Your task to perform on an android device: change the upload size in google photos Image 0: 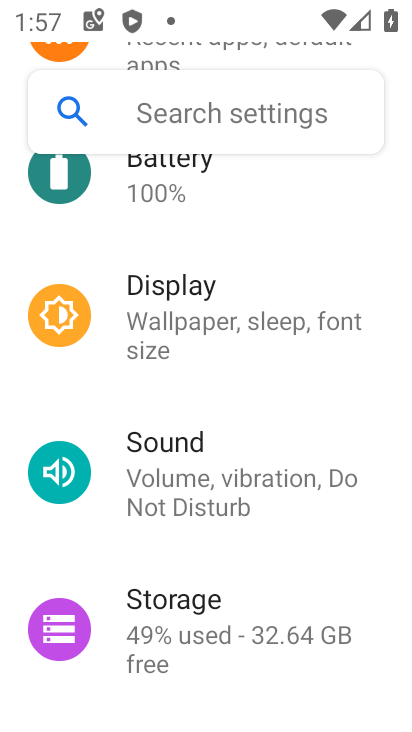
Step 0: press home button
Your task to perform on an android device: change the upload size in google photos Image 1: 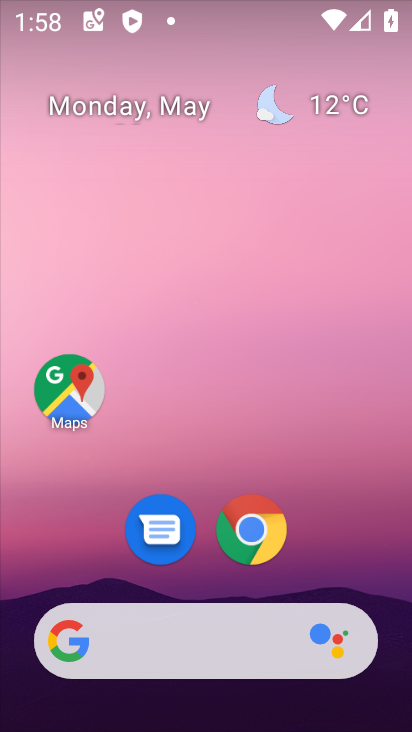
Step 1: drag from (379, 594) to (318, 136)
Your task to perform on an android device: change the upload size in google photos Image 2: 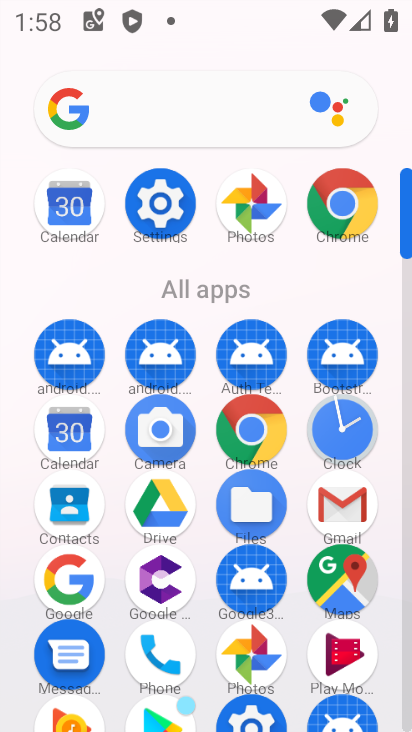
Step 2: click (409, 682)
Your task to perform on an android device: change the upload size in google photos Image 3: 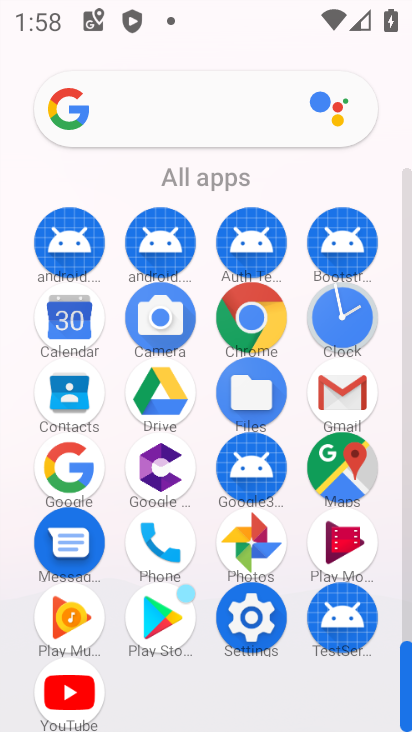
Step 3: click (248, 543)
Your task to perform on an android device: change the upload size in google photos Image 4: 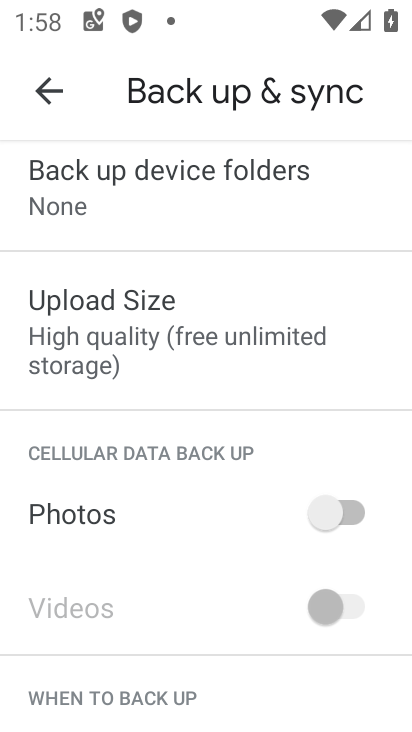
Step 4: click (137, 313)
Your task to perform on an android device: change the upload size in google photos Image 5: 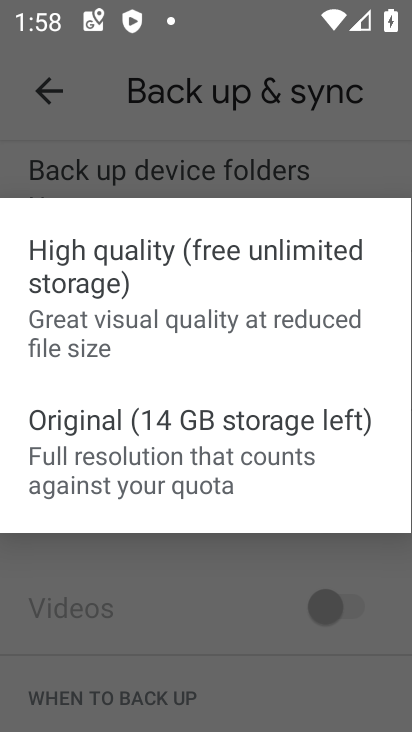
Step 5: click (161, 486)
Your task to perform on an android device: change the upload size in google photos Image 6: 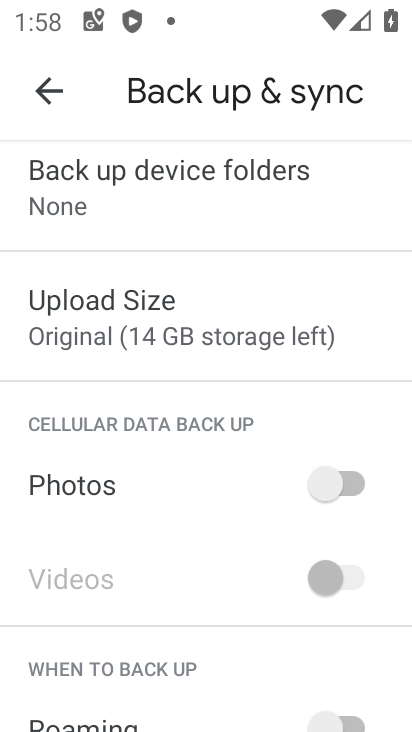
Step 6: task complete